Your task to perform on an android device: turn on sleep mode Image 0: 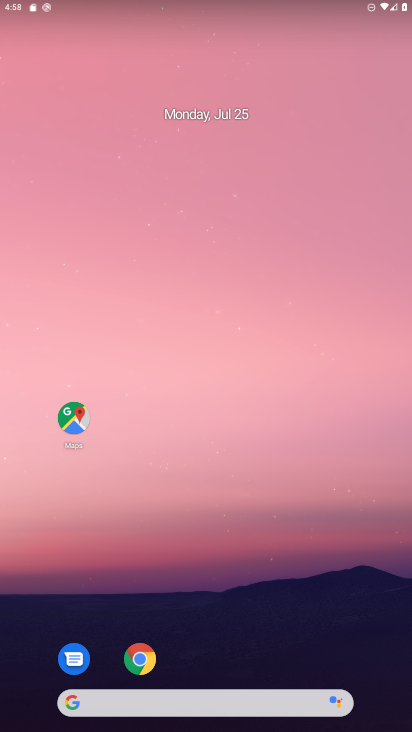
Step 0: click (193, 667)
Your task to perform on an android device: turn on sleep mode Image 1: 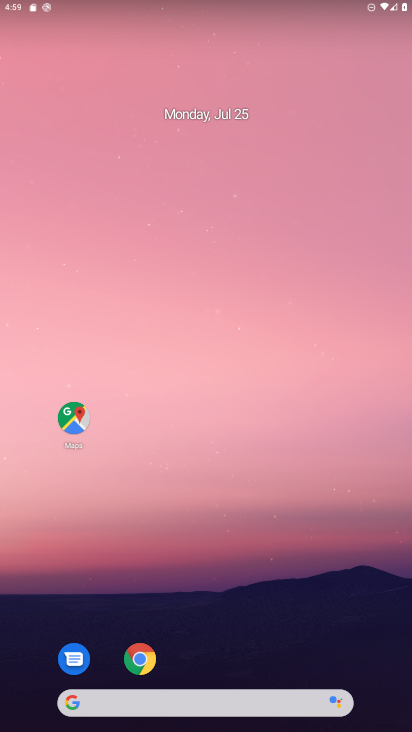
Step 1: drag from (200, 561) to (170, 183)
Your task to perform on an android device: turn on sleep mode Image 2: 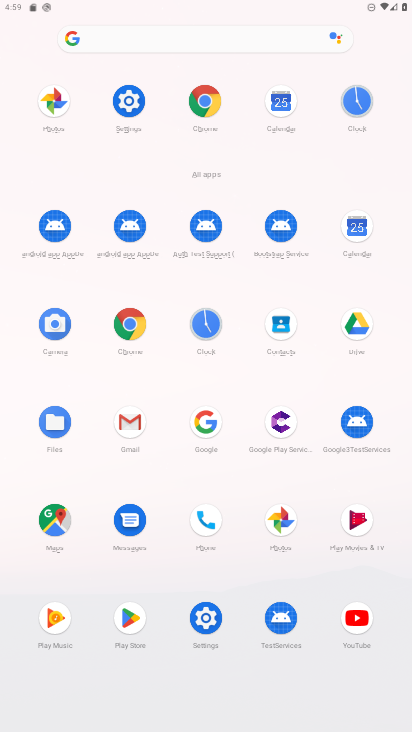
Step 2: click (125, 102)
Your task to perform on an android device: turn on sleep mode Image 3: 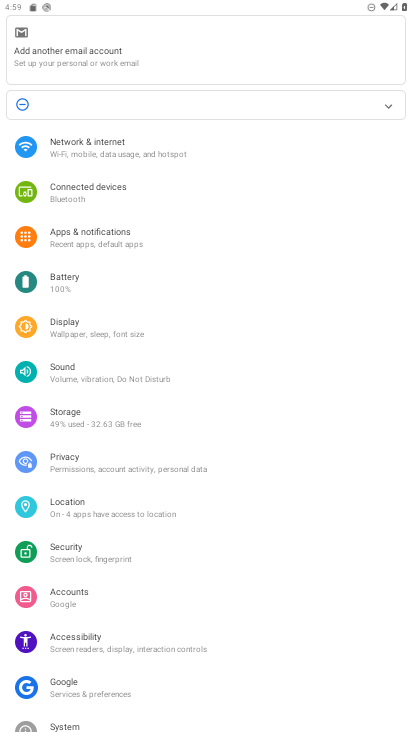
Step 3: task complete